Your task to perform on an android device: open sync settings in chrome Image 0: 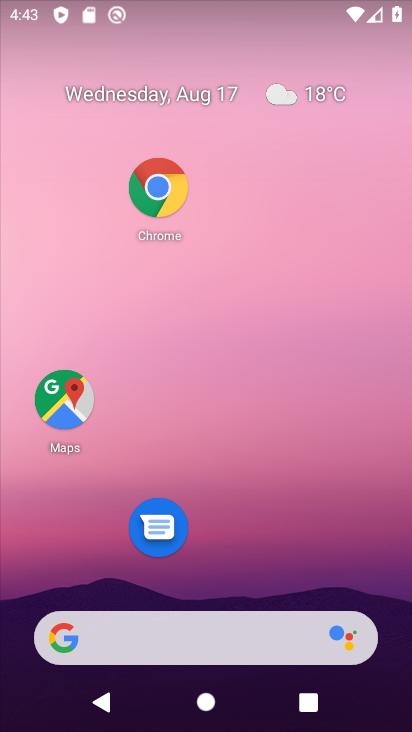
Step 0: click (156, 192)
Your task to perform on an android device: open sync settings in chrome Image 1: 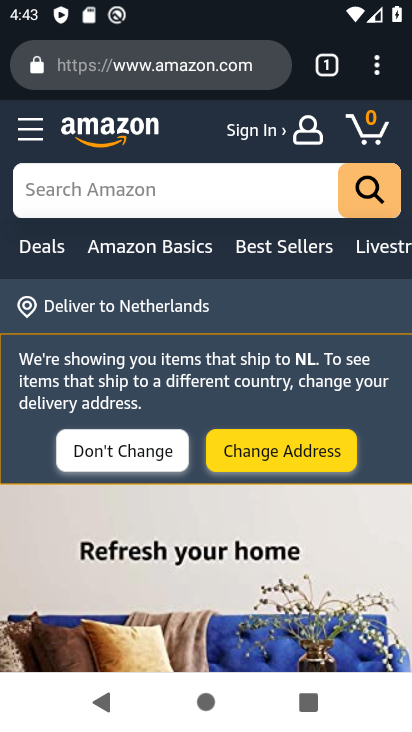
Step 1: click (391, 62)
Your task to perform on an android device: open sync settings in chrome Image 2: 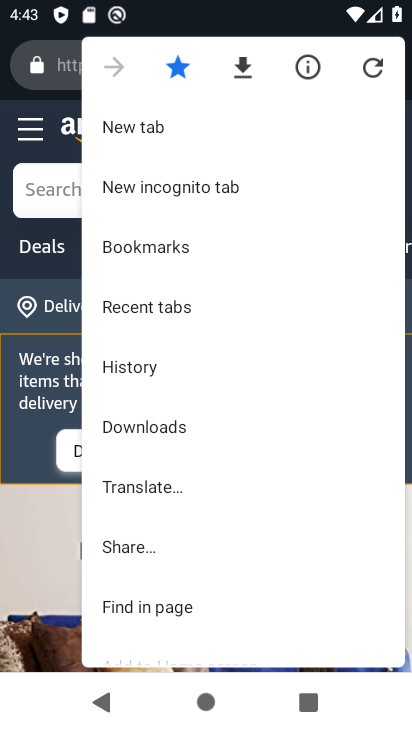
Step 2: drag from (182, 628) to (155, 200)
Your task to perform on an android device: open sync settings in chrome Image 3: 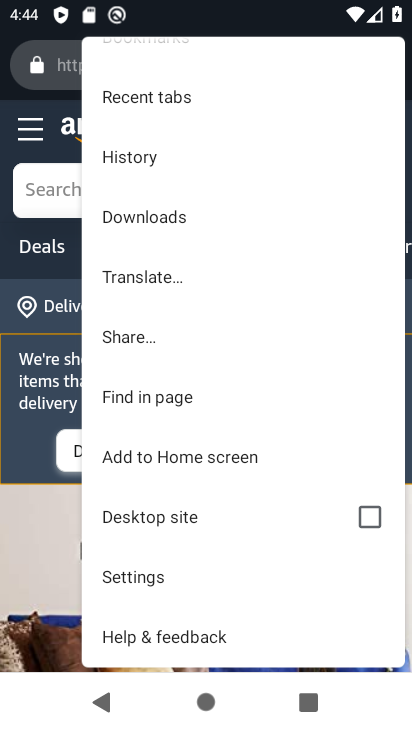
Step 3: click (123, 577)
Your task to perform on an android device: open sync settings in chrome Image 4: 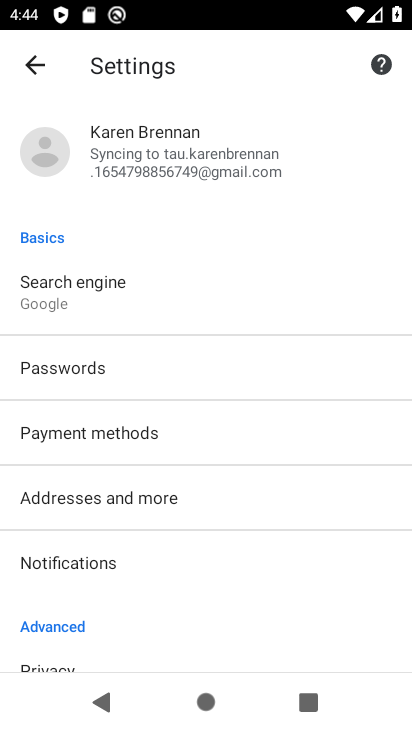
Step 4: click (186, 166)
Your task to perform on an android device: open sync settings in chrome Image 5: 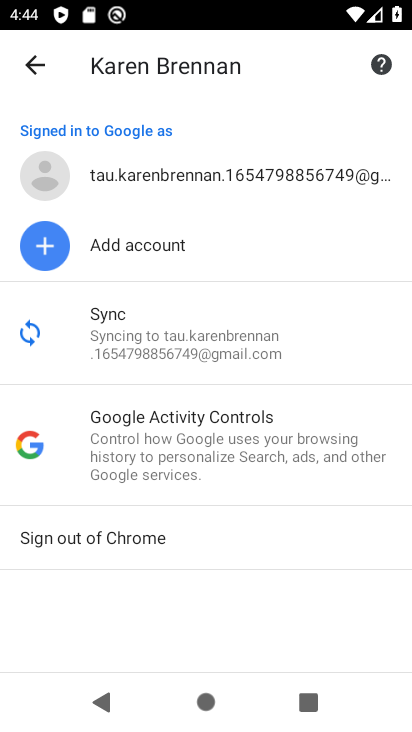
Step 5: click (170, 332)
Your task to perform on an android device: open sync settings in chrome Image 6: 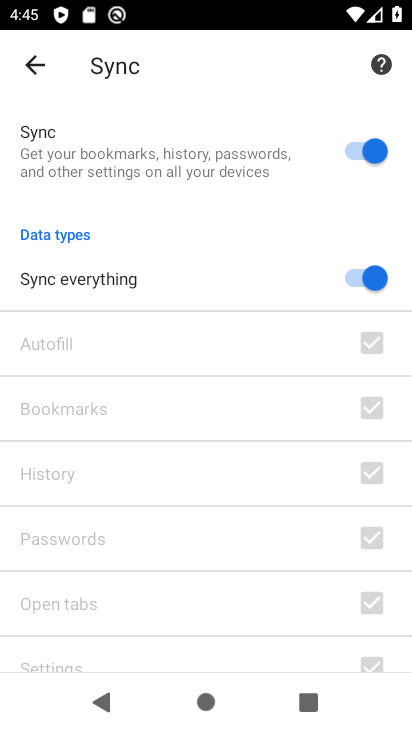
Step 6: task complete